Your task to perform on an android device: Open Chrome and go to settings Image 0: 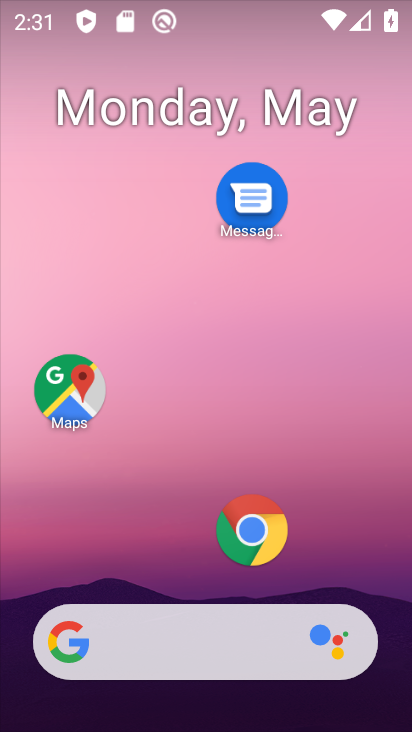
Step 0: click (255, 523)
Your task to perform on an android device: Open Chrome and go to settings Image 1: 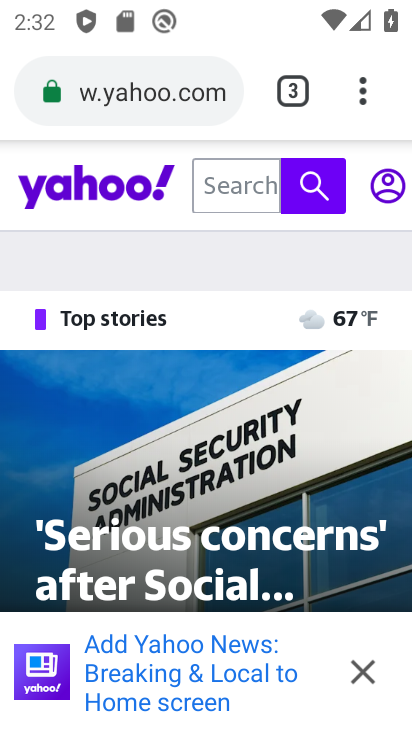
Step 1: task complete